Your task to perform on an android device: Turn off the flashlight Image 0: 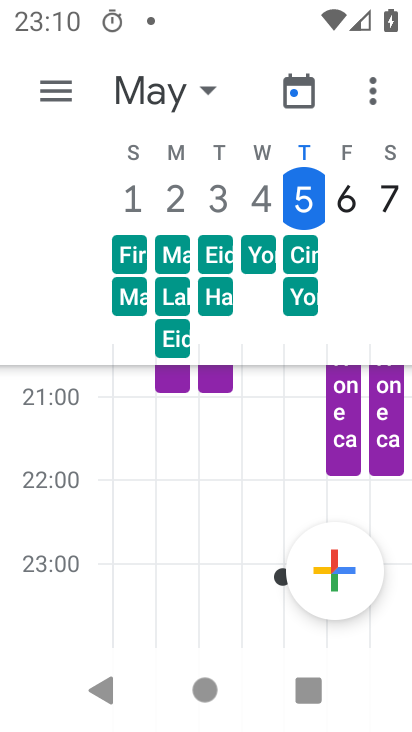
Step 0: press home button
Your task to perform on an android device: Turn off the flashlight Image 1: 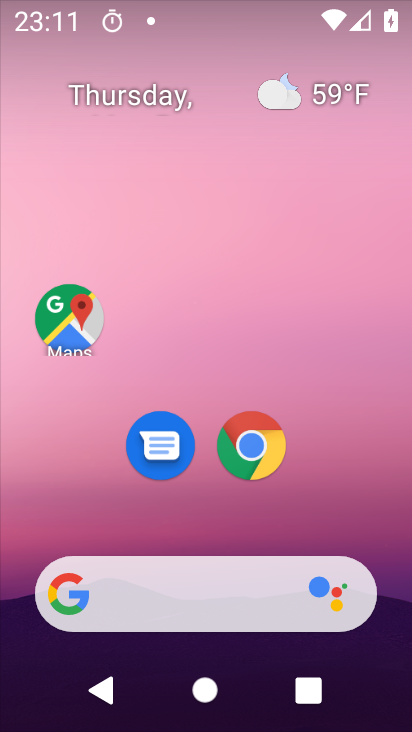
Step 1: task complete